Your task to perform on an android device: Open Amazon Image 0: 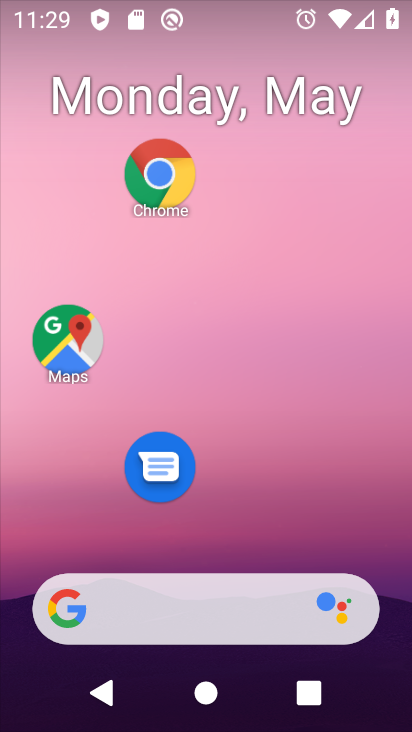
Step 0: click (165, 189)
Your task to perform on an android device: Open Amazon Image 1: 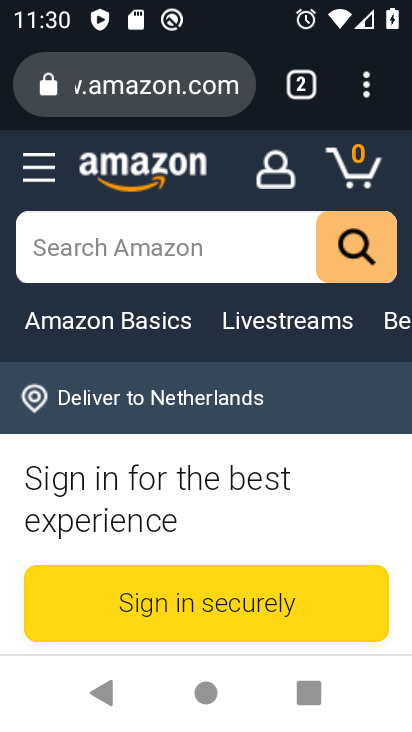
Step 1: task complete